Your task to perform on an android device: Open Google Chrome and click the shortcut for Amazon.com Image 0: 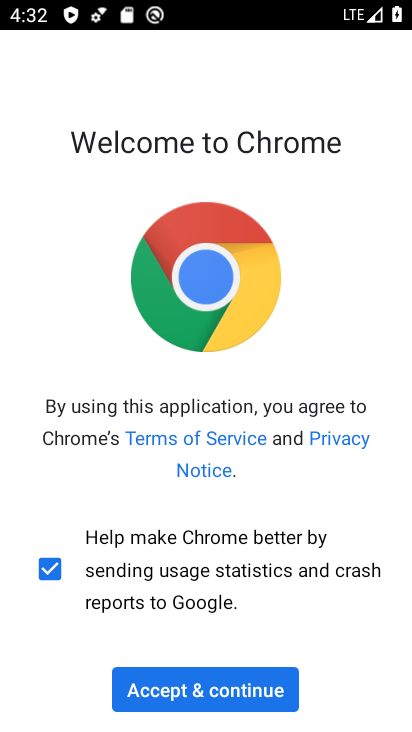
Step 0: click (261, 695)
Your task to perform on an android device: Open Google Chrome and click the shortcut for Amazon.com Image 1: 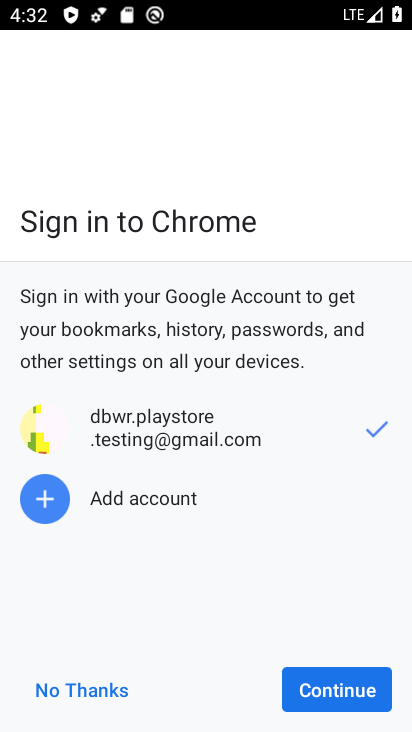
Step 1: click (340, 699)
Your task to perform on an android device: Open Google Chrome and click the shortcut for Amazon.com Image 2: 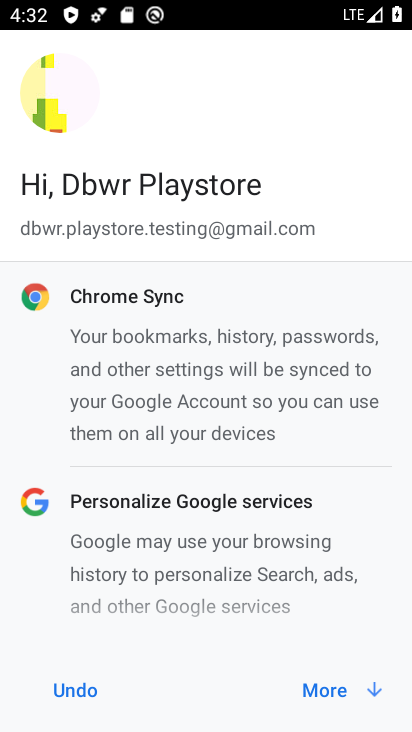
Step 2: click (340, 697)
Your task to perform on an android device: Open Google Chrome and click the shortcut for Amazon.com Image 3: 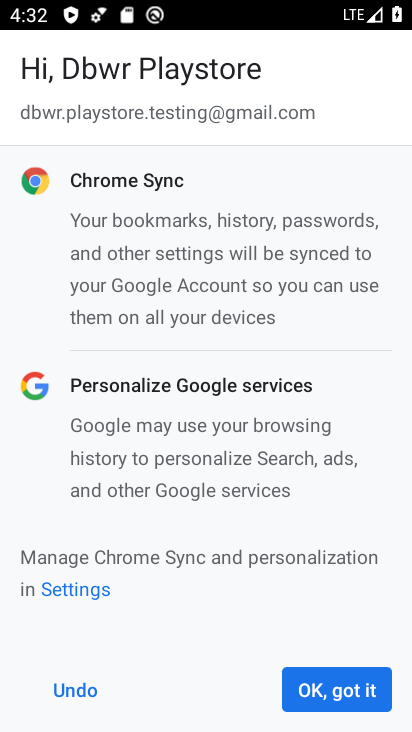
Step 3: click (340, 699)
Your task to perform on an android device: Open Google Chrome and click the shortcut for Amazon.com Image 4: 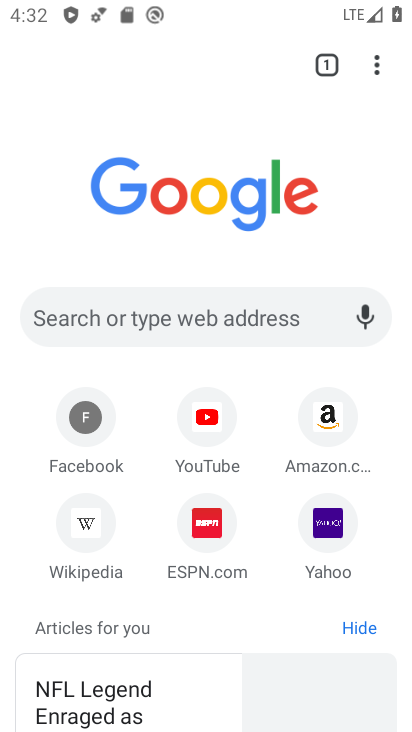
Step 4: click (326, 431)
Your task to perform on an android device: Open Google Chrome and click the shortcut for Amazon.com Image 5: 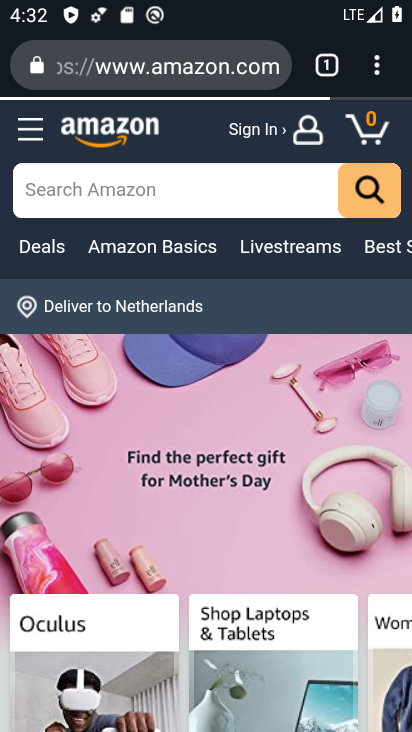
Step 5: task complete